Your task to perform on an android device: Go to notification settings Image 0: 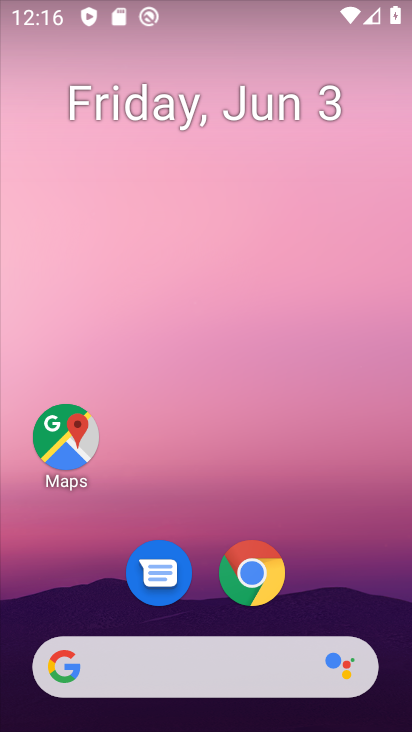
Step 0: task complete